Your task to perform on an android device: Go to Wikipedia Image 0: 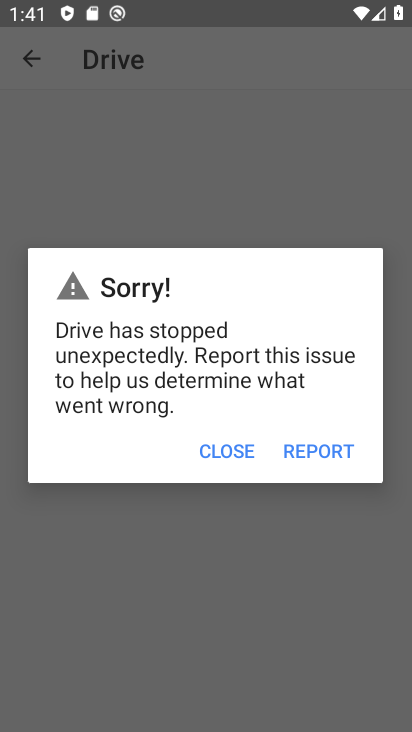
Step 0: press home button
Your task to perform on an android device: Go to Wikipedia Image 1: 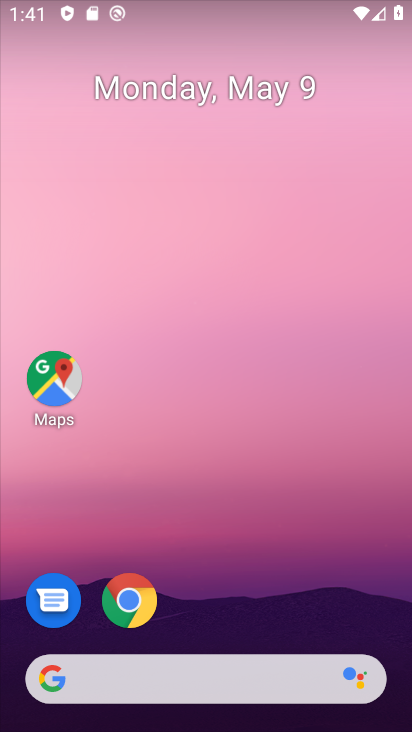
Step 1: click (138, 610)
Your task to perform on an android device: Go to Wikipedia Image 2: 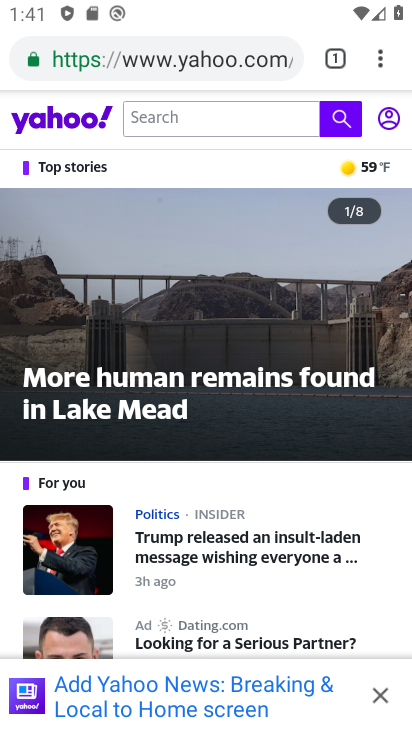
Step 2: click (168, 67)
Your task to perform on an android device: Go to Wikipedia Image 3: 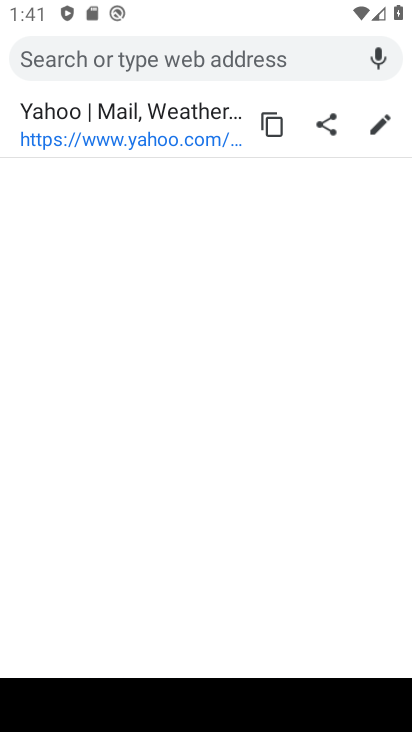
Step 3: type "wikipedia"
Your task to perform on an android device: Go to Wikipedia Image 4: 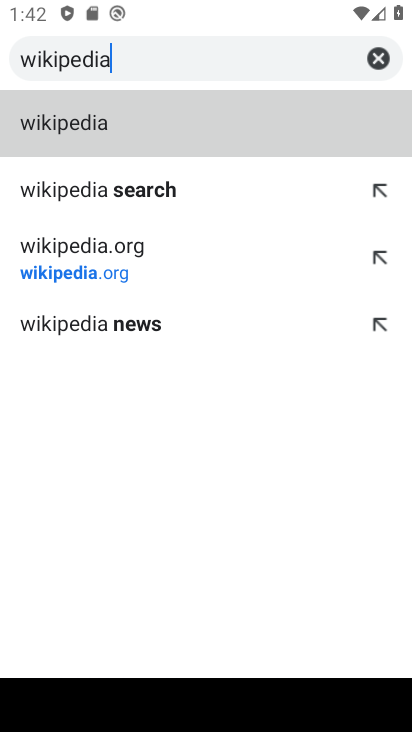
Step 4: click (85, 124)
Your task to perform on an android device: Go to Wikipedia Image 5: 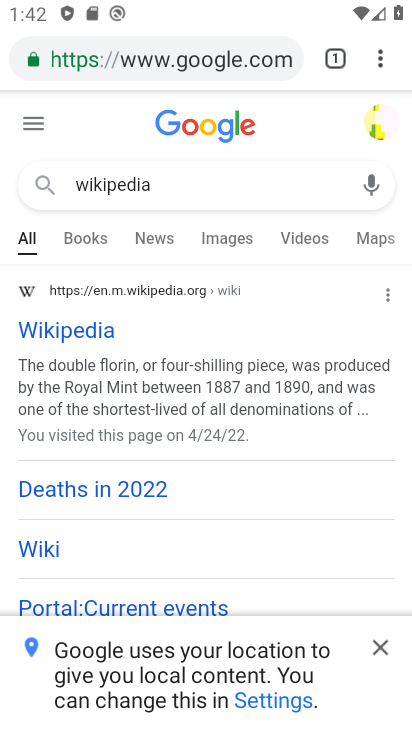
Step 5: click (94, 335)
Your task to perform on an android device: Go to Wikipedia Image 6: 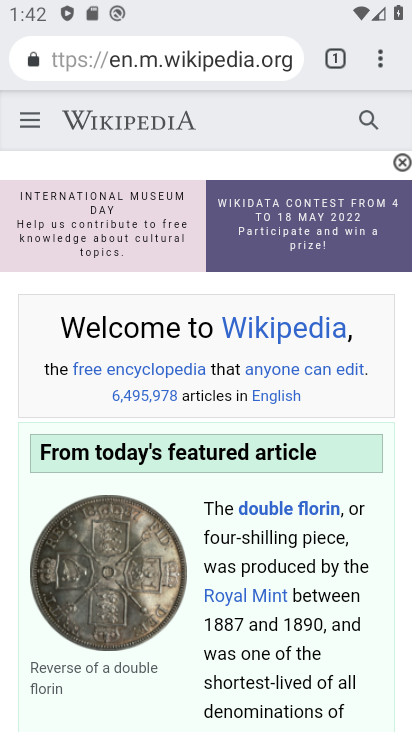
Step 6: task complete